Your task to perform on an android device: change notifications settings Image 0: 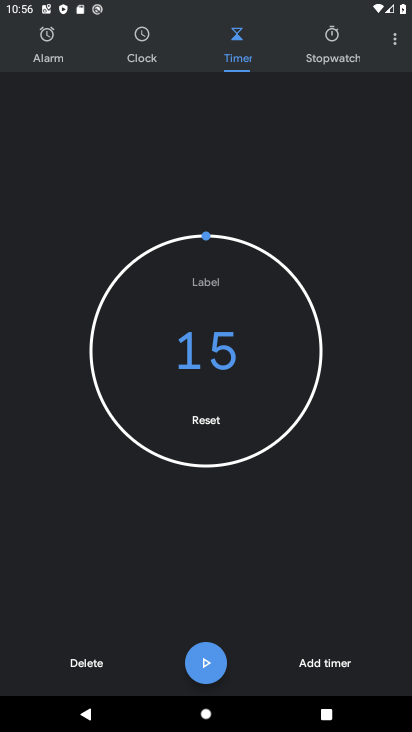
Step 0: press home button
Your task to perform on an android device: change notifications settings Image 1: 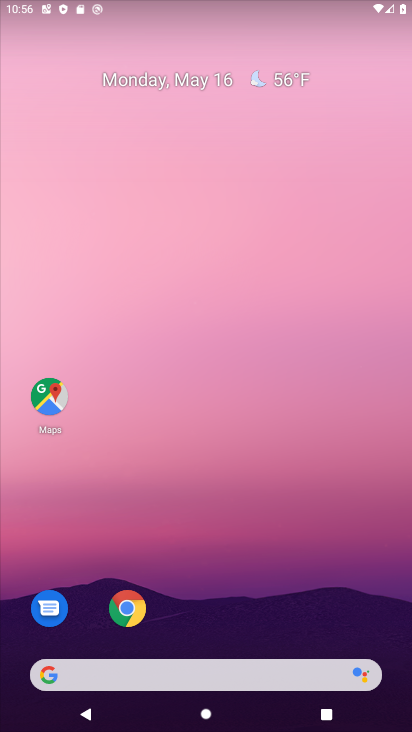
Step 1: drag from (393, 533) to (250, 157)
Your task to perform on an android device: change notifications settings Image 2: 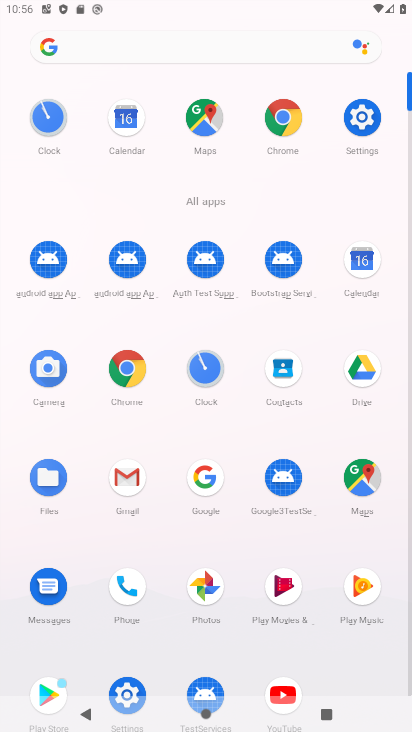
Step 2: click (362, 122)
Your task to perform on an android device: change notifications settings Image 3: 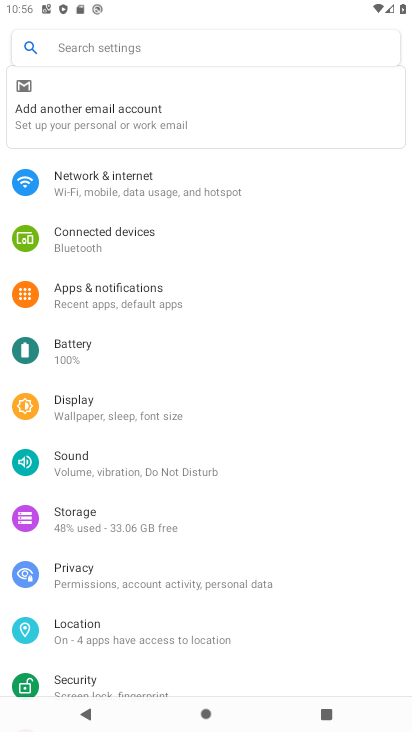
Step 3: click (120, 301)
Your task to perform on an android device: change notifications settings Image 4: 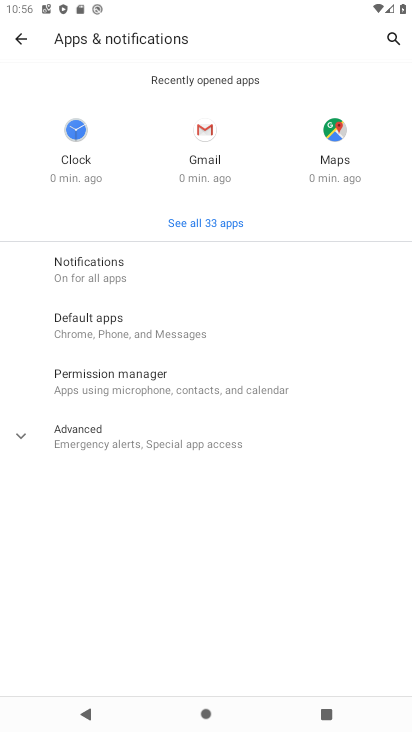
Step 4: click (138, 272)
Your task to perform on an android device: change notifications settings Image 5: 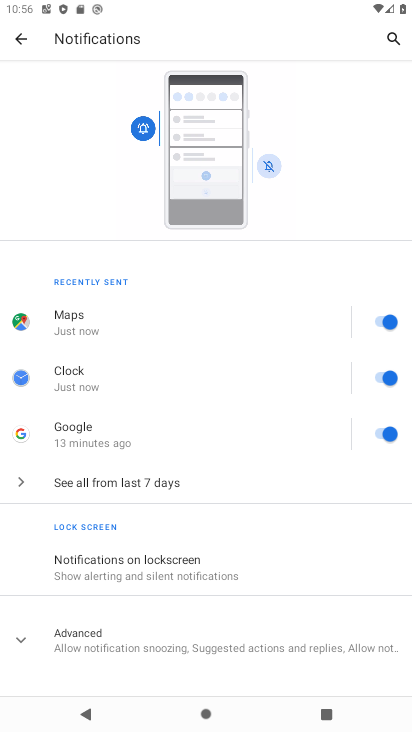
Step 5: drag from (287, 596) to (230, 397)
Your task to perform on an android device: change notifications settings Image 6: 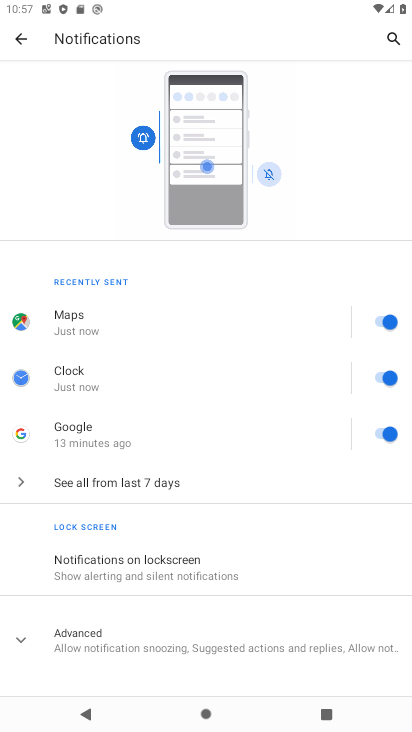
Step 6: click (188, 627)
Your task to perform on an android device: change notifications settings Image 7: 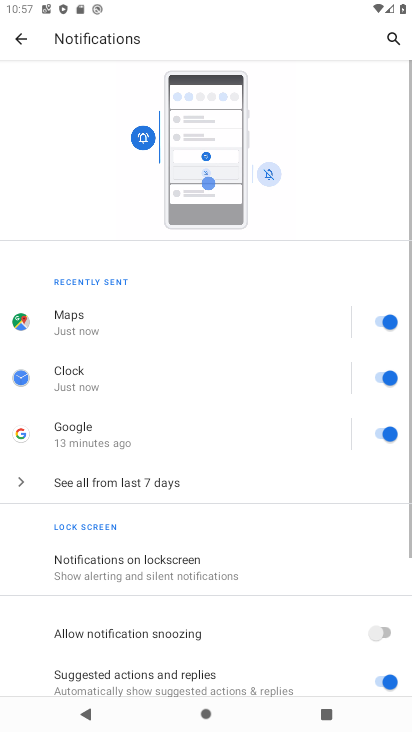
Step 7: task complete